Your task to perform on an android device: move a message to another label in the gmail app Image 0: 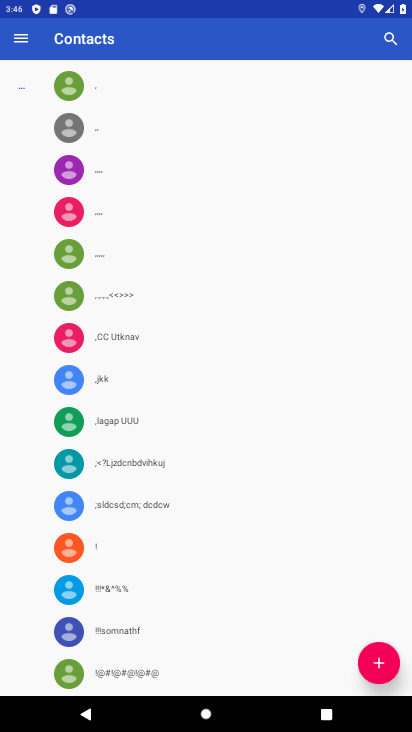
Step 0: press home button
Your task to perform on an android device: move a message to another label in the gmail app Image 1: 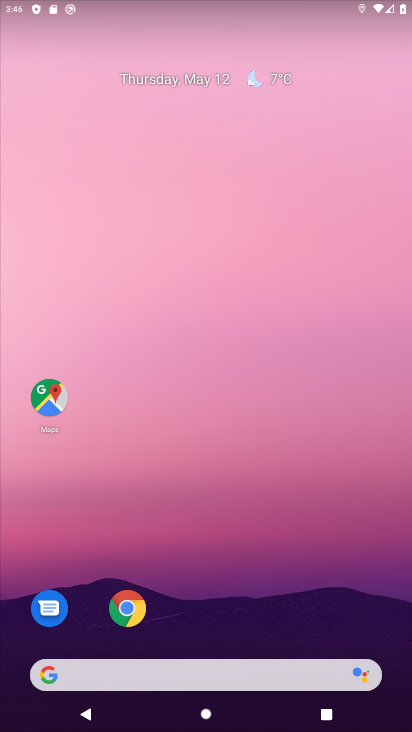
Step 1: drag from (278, 592) to (254, 52)
Your task to perform on an android device: move a message to another label in the gmail app Image 2: 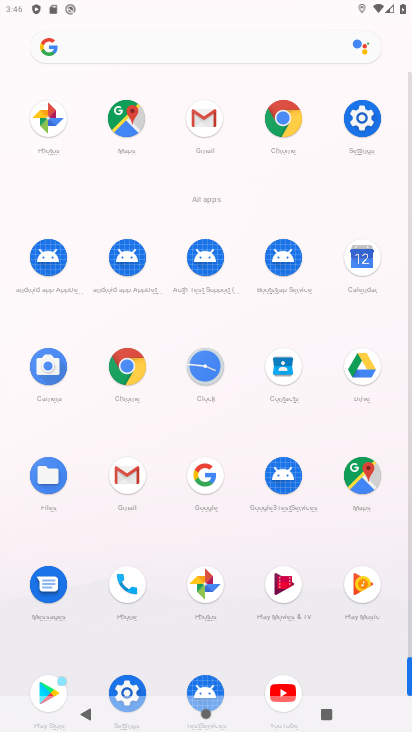
Step 2: click (127, 476)
Your task to perform on an android device: move a message to another label in the gmail app Image 3: 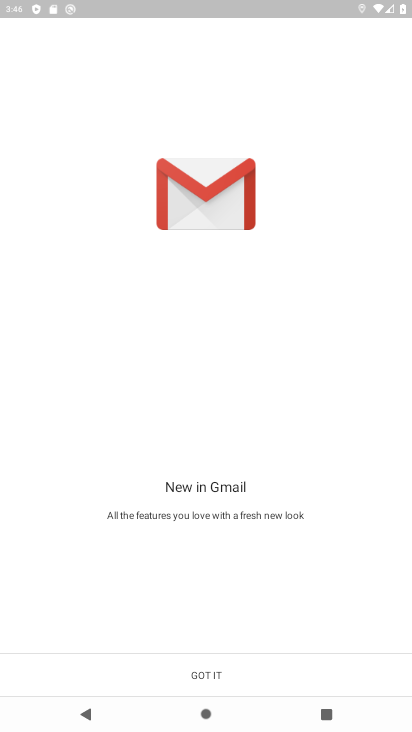
Step 3: click (214, 664)
Your task to perform on an android device: move a message to another label in the gmail app Image 4: 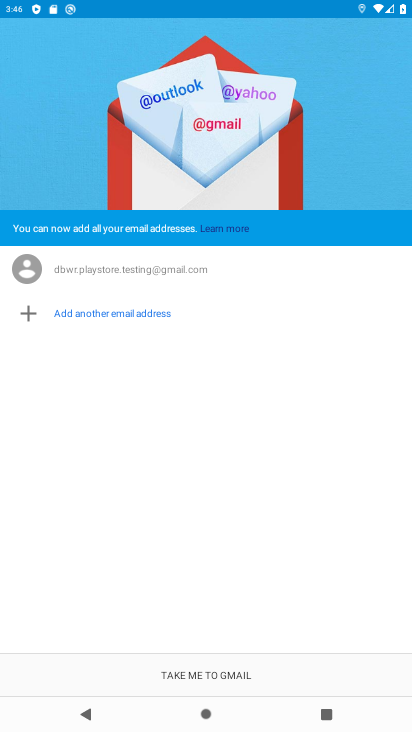
Step 4: click (214, 664)
Your task to perform on an android device: move a message to another label in the gmail app Image 5: 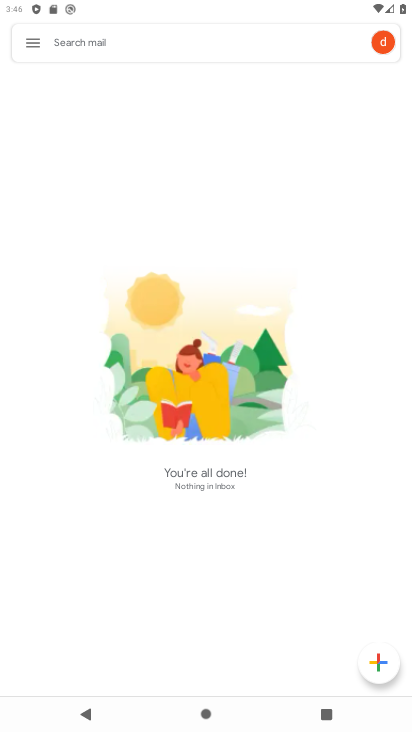
Step 5: click (31, 41)
Your task to perform on an android device: move a message to another label in the gmail app Image 6: 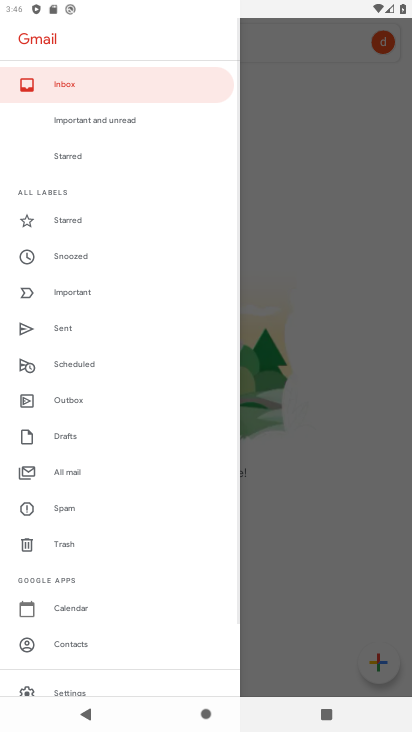
Step 6: click (55, 93)
Your task to perform on an android device: move a message to another label in the gmail app Image 7: 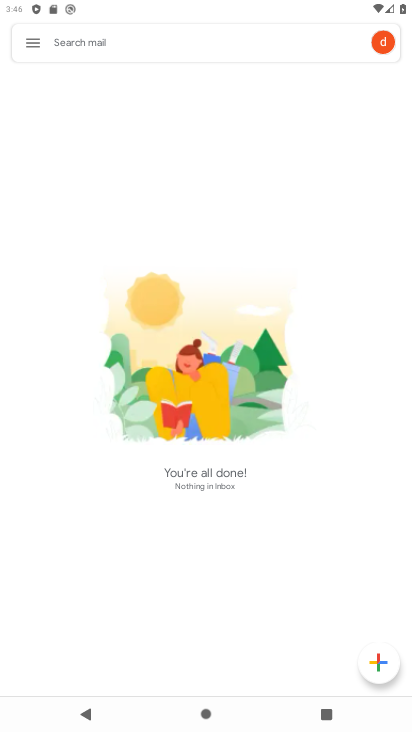
Step 7: task complete